Your task to perform on an android device: turn pop-ups on in chrome Image 0: 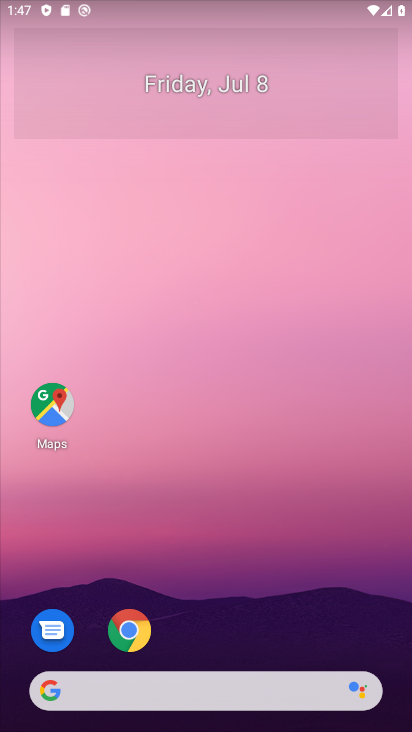
Step 0: drag from (265, 576) to (257, 121)
Your task to perform on an android device: turn pop-ups on in chrome Image 1: 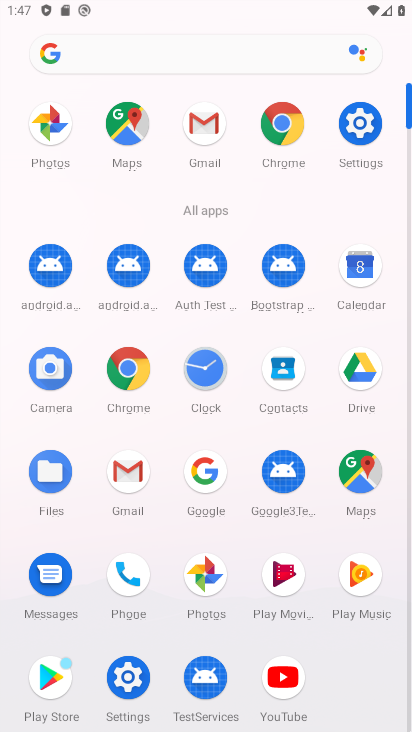
Step 1: click (284, 123)
Your task to perform on an android device: turn pop-ups on in chrome Image 2: 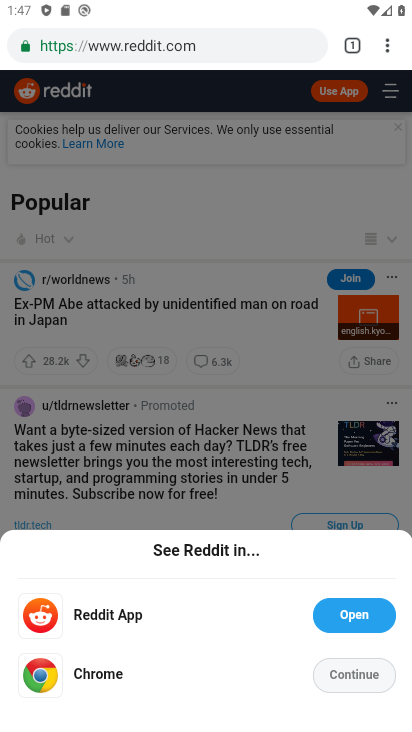
Step 2: drag from (389, 41) to (249, 540)
Your task to perform on an android device: turn pop-ups on in chrome Image 3: 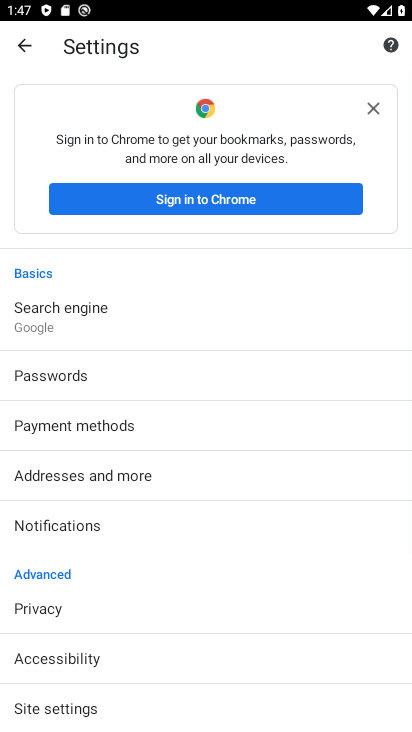
Step 3: drag from (207, 573) to (259, 245)
Your task to perform on an android device: turn pop-ups on in chrome Image 4: 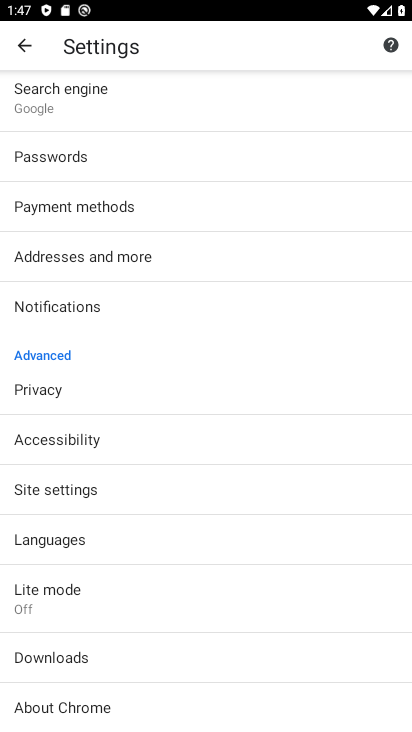
Step 4: click (40, 496)
Your task to perform on an android device: turn pop-ups on in chrome Image 5: 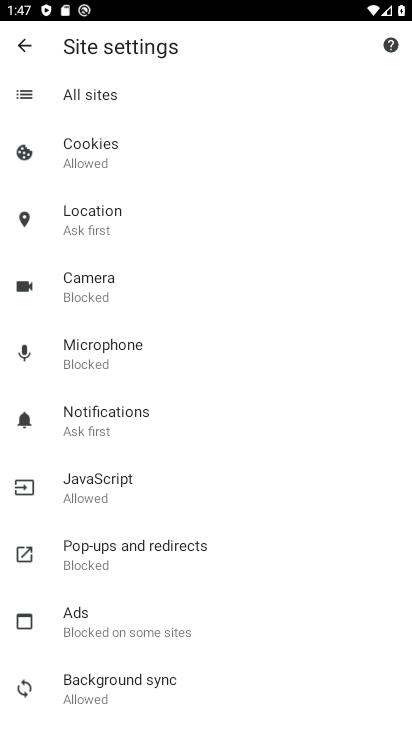
Step 5: click (156, 555)
Your task to perform on an android device: turn pop-ups on in chrome Image 6: 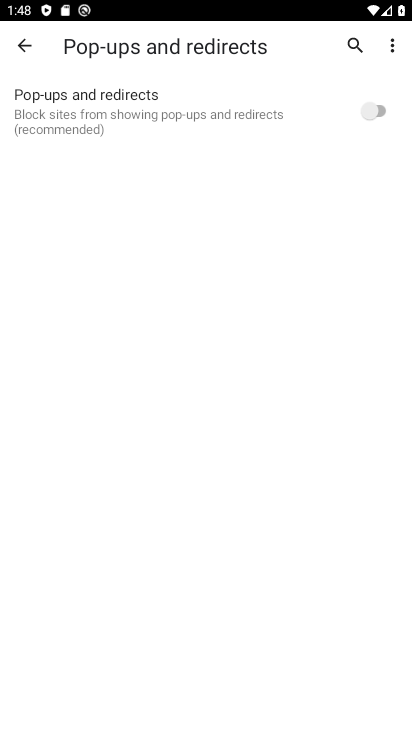
Step 6: click (365, 101)
Your task to perform on an android device: turn pop-ups on in chrome Image 7: 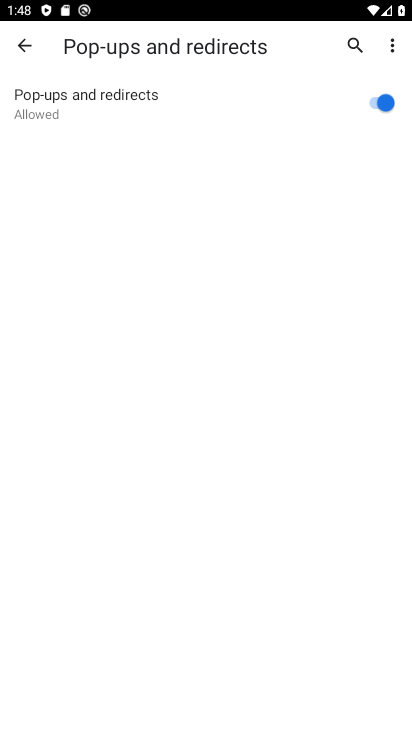
Step 7: task complete